Your task to perform on an android device: check android version Image 0: 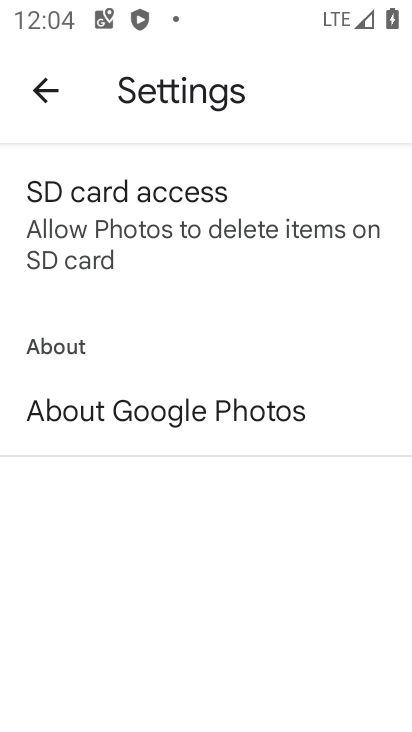
Step 0: press home button
Your task to perform on an android device: check android version Image 1: 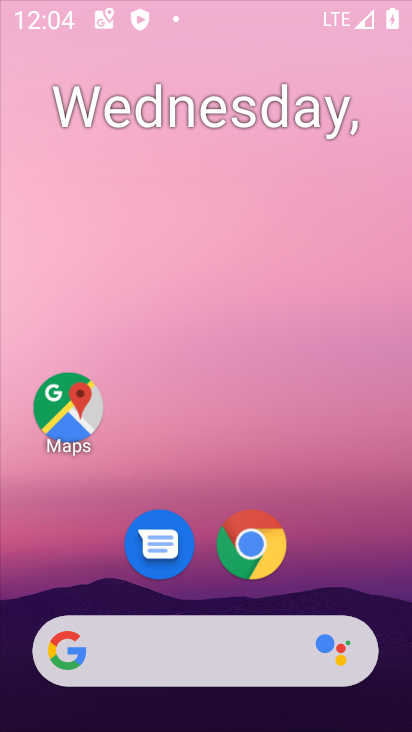
Step 1: drag from (387, 634) to (285, 14)
Your task to perform on an android device: check android version Image 2: 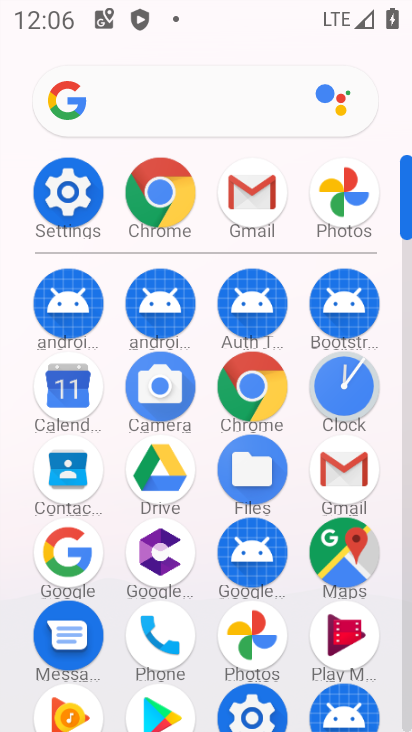
Step 2: click (55, 205)
Your task to perform on an android device: check android version Image 3: 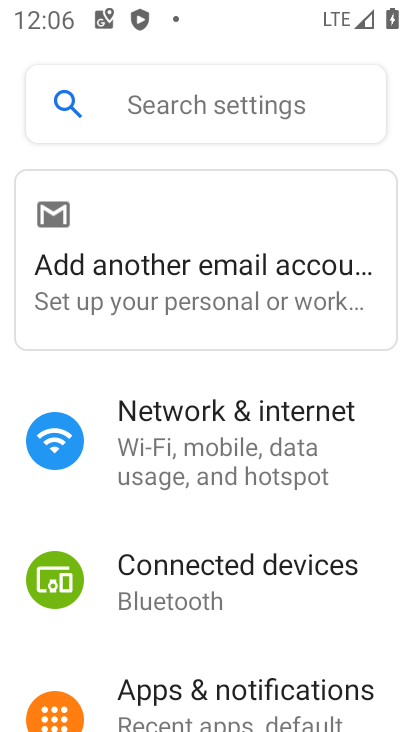
Step 3: drag from (202, 647) to (208, 95)
Your task to perform on an android device: check android version Image 4: 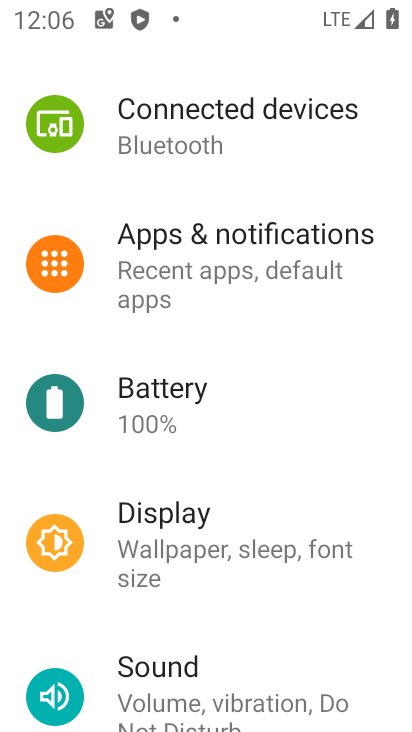
Step 4: drag from (245, 681) to (249, 96)
Your task to perform on an android device: check android version Image 5: 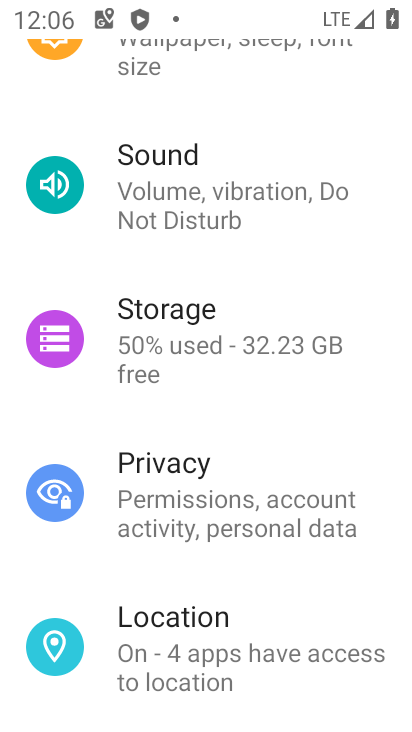
Step 5: drag from (235, 690) to (199, 79)
Your task to perform on an android device: check android version Image 6: 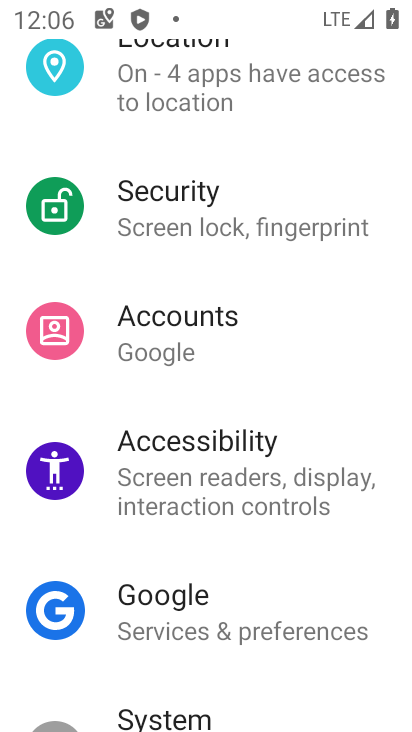
Step 6: drag from (200, 688) to (207, 99)
Your task to perform on an android device: check android version Image 7: 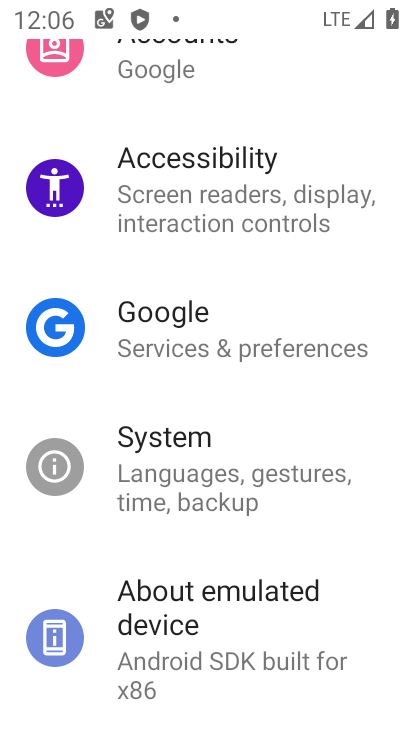
Step 7: click (245, 686)
Your task to perform on an android device: check android version Image 8: 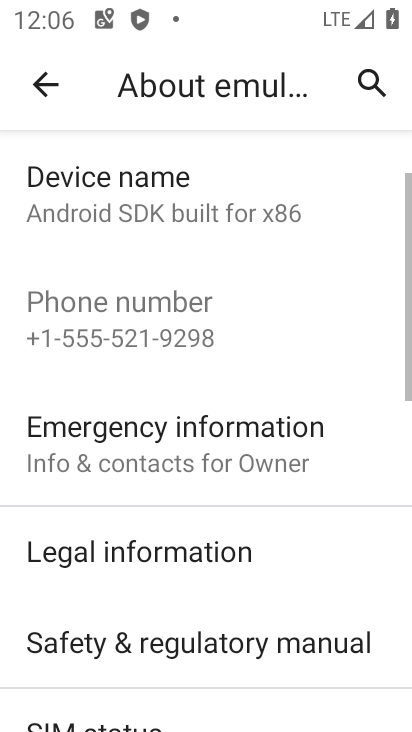
Step 8: drag from (181, 648) to (204, 194)
Your task to perform on an android device: check android version Image 9: 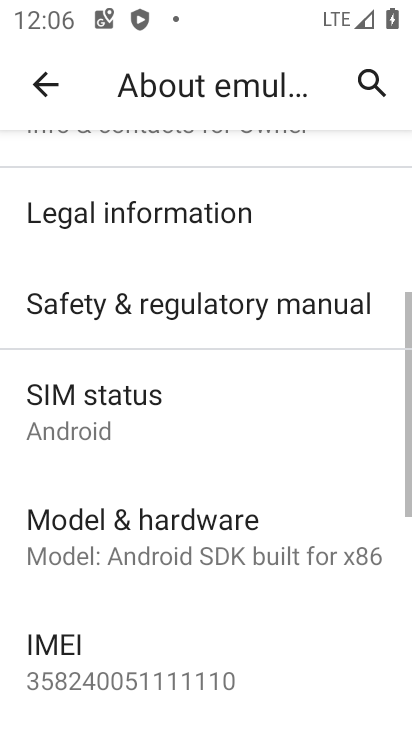
Step 9: drag from (157, 638) to (218, 190)
Your task to perform on an android device: check android version Image 10: 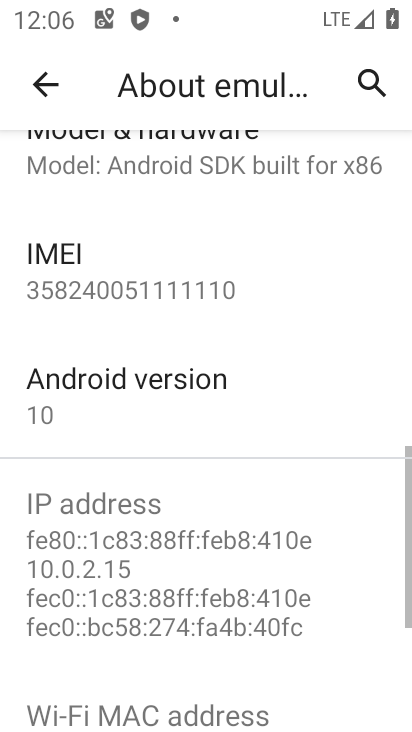
Step 10: click (187, 399)
Your task to perform on an android device: check android version Image 11: 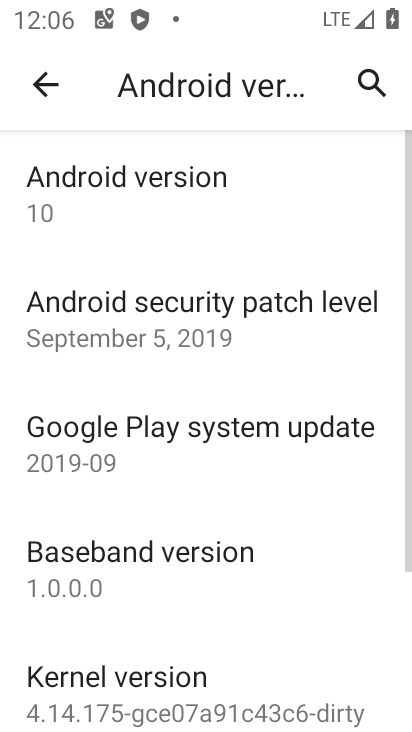
Step 11: task complete